Your task to perform on an android device: change the clock display to digital Image 0: 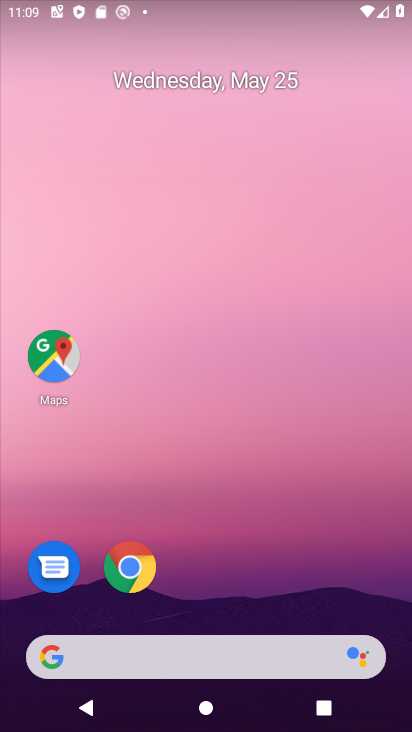
Step 0: drag from (238, 577) to (270, 8)
Your task to perform on an android device: change the clock display to digital Image 1: 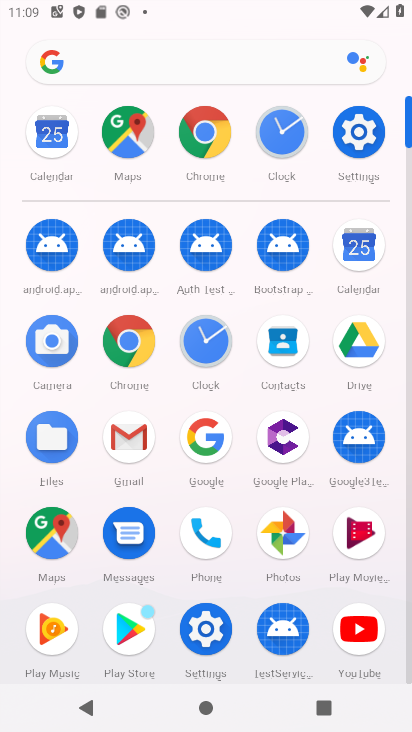
Step 1: click (286, 176)
Your task to perform on an android device: change the clock display to digital Image 2: 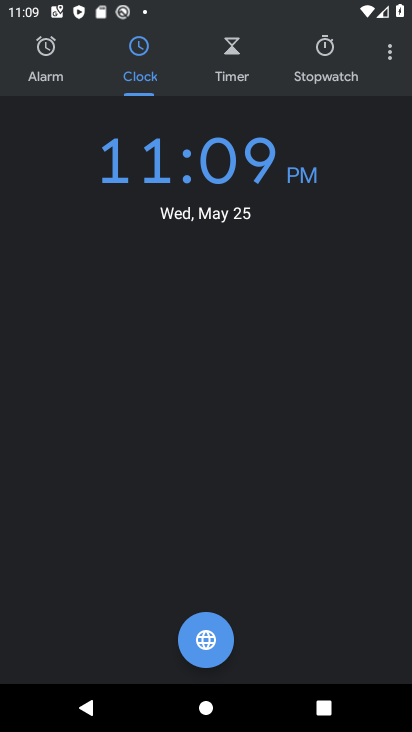
Step 2: click (383, 48)
Your task to perform on an android device: change the clock display to digital Image 3: 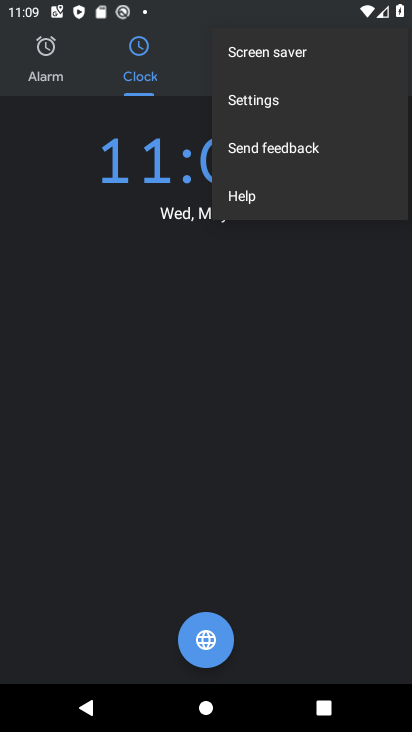
Step 3: click (276, 106)
Your task to perform on an android device: change the clock display to digital Image 4: 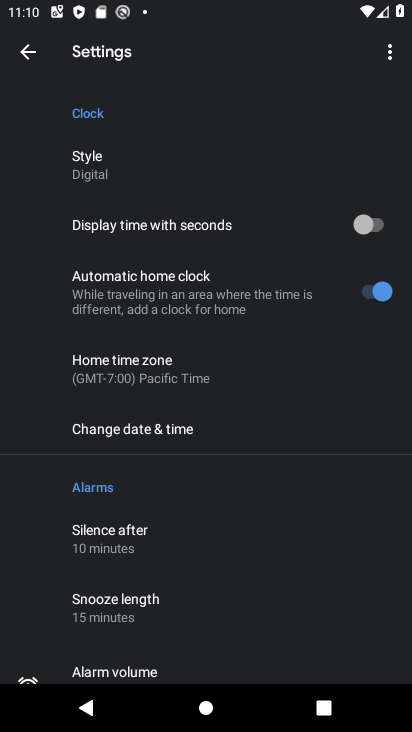
Step 4: task complete